Your task to perform on an android device: clear all cookies in the chrome app Image 0: 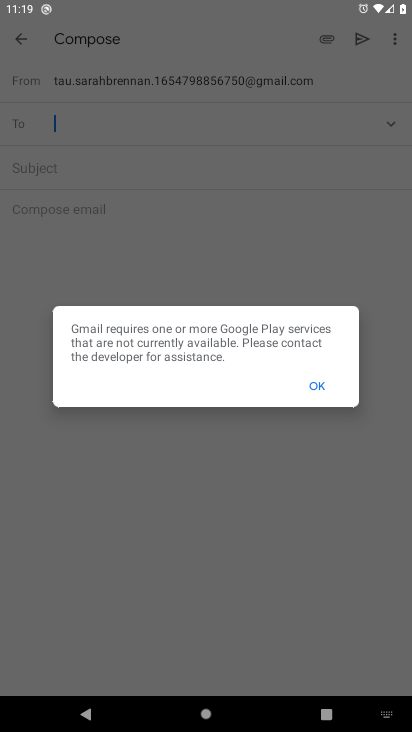
Step 0: press home button
Your task to perform on an android device: clear all cookies in the chrome app Image 1: 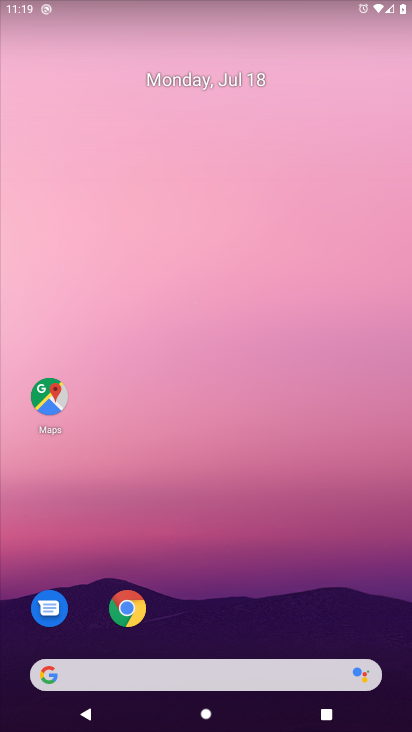
Step 1: click (101, 622)
Your task to perform on an android device: clear all cookies in the chrome app Image 2: 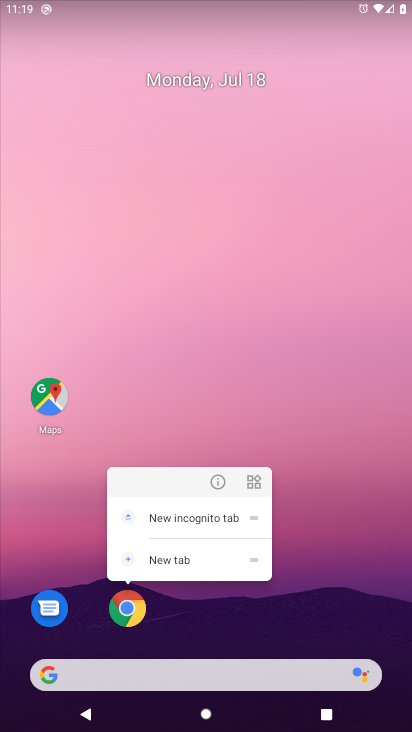
Step 2: click (122, 610)
Your task to perform on an android device: clear all cookies in the chrome app Image 3: 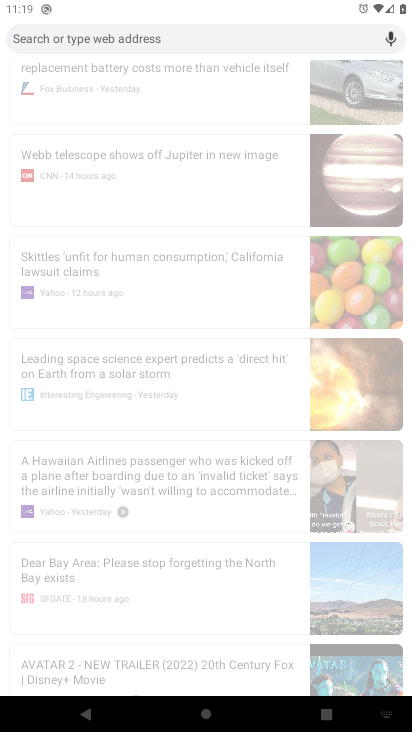
Step 3: click (226, 42)
Your task to perform on an android device: clear all cookies in the chrome app Image 4: 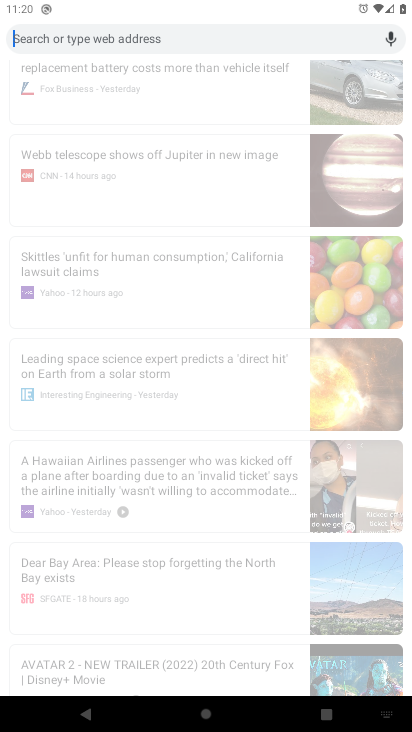
Step 4: click (61, 45)
Your task to perform on an android device: clear all cookies in the chrome app Image 5: 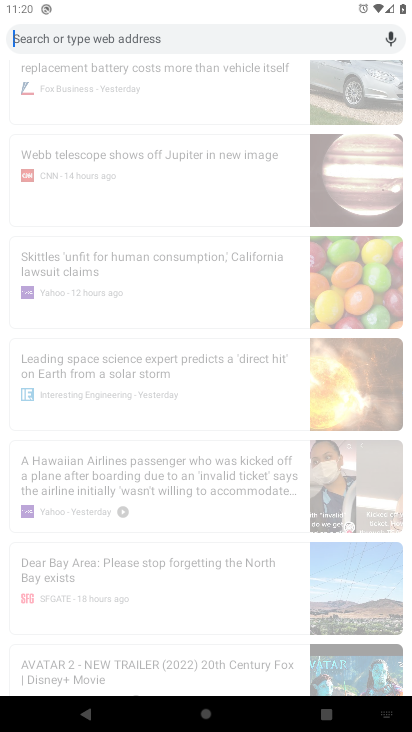
Step 5: click (41, 42)
Your task to perform on an android device: clear all cookies in the chrome app Image 6: 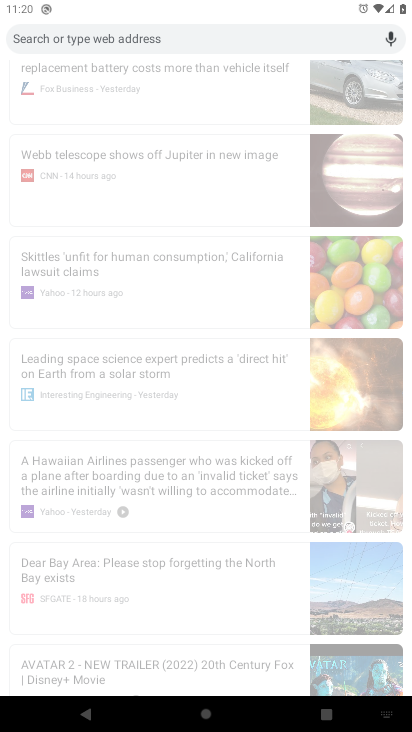
Step 6: task complete